Your task to perform on an android device: Open ESPN.com Image 0: 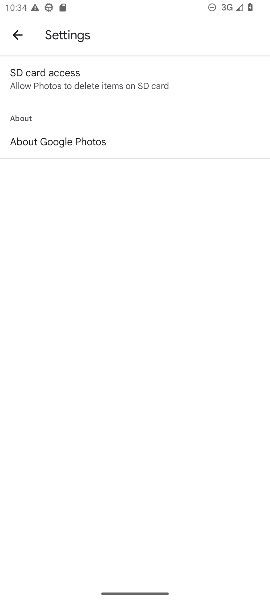
Step 0: press home button
Your task to perform on an android device: Open ESPN.com Image 1: 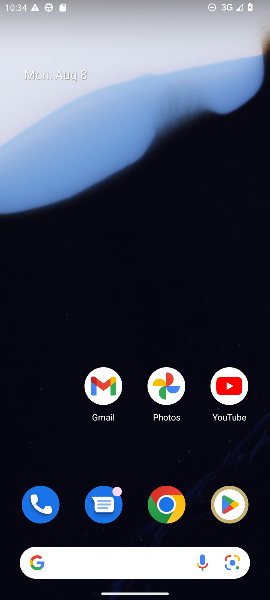
Step 1: click (162, 503)
Your task to perform on an android device: Open ESPN.com Image 2: 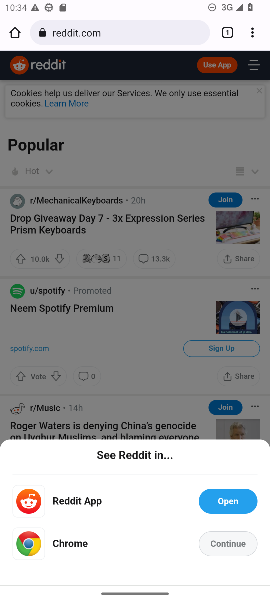
Step 2: click (96, 34)
Your task to perform on an android device: Open ESPN.com Image 3: 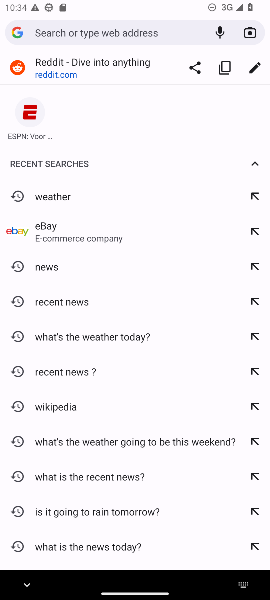
Step 3: type "ESPN.com"
Your task to perform on an android device: Open ESPN.com Image 4: 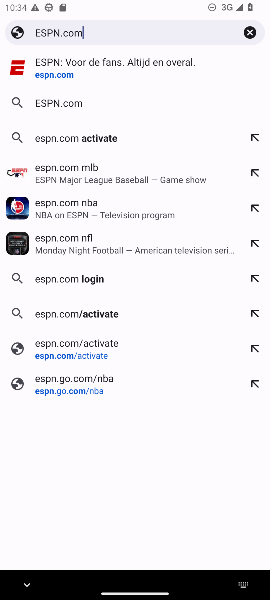
Step 4: click (113, 61)
Your task to perform on an android device: Open ESPN.com Image 5: 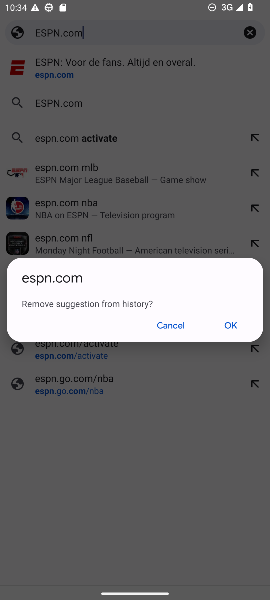
Step 5: click (174, 323)
Your task to perform on an android device: Open ESPN.com Image 6: 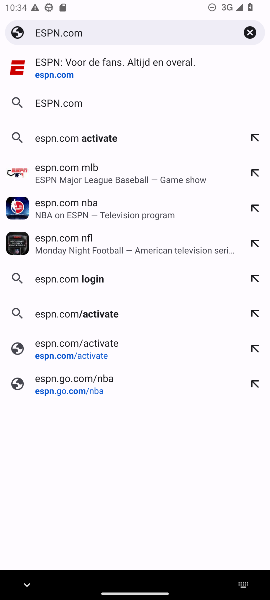
Step 6: click (64, 68)
Your task to perform on an android device: Open ESPN.com Image 7: 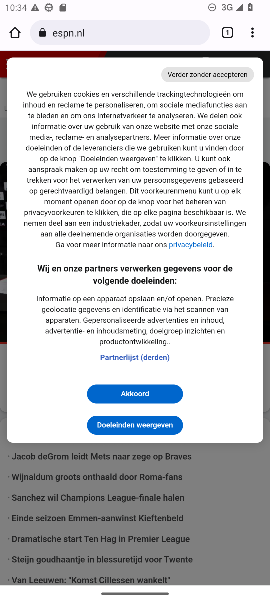
Step 7: task complete